Your task to perform on an android device: What is the speed of sound? Image 0: 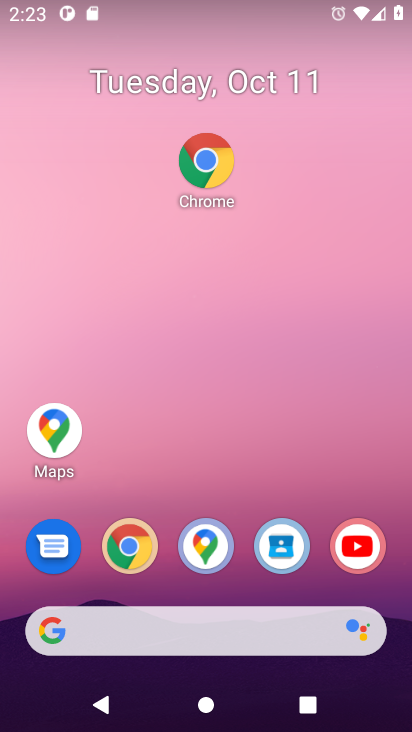
Step 0: click (136, 548)
Your task to perform on an android device: What is the speed of sound? Image 1: 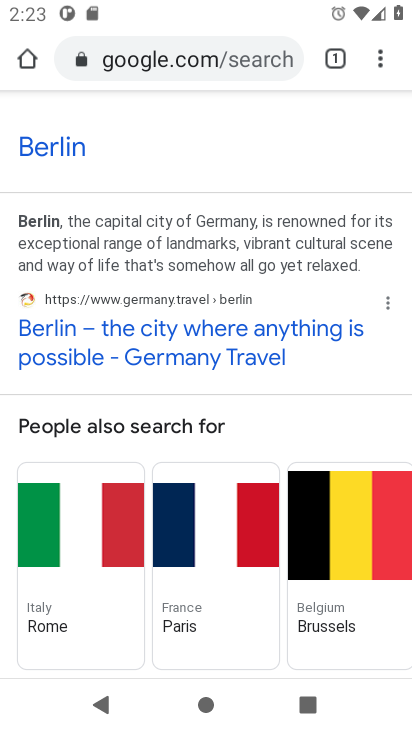
Step 1: click (202, 54)
Your task to perform on an android device: What is the speed of sound? Image 2: 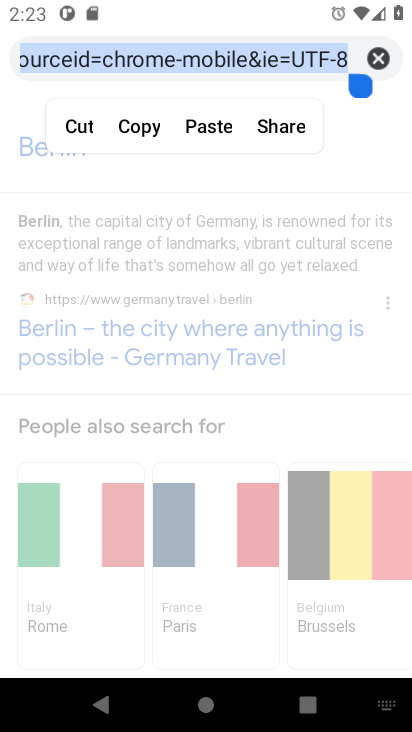
Step 2: press enter
Your task to perform on an android device: What is the speed of sound? Image 3: 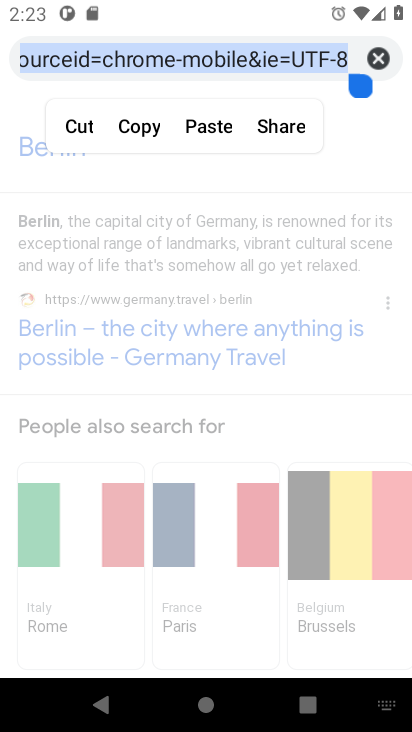
Step 3: type "speed of sound"
Your task to perform on an android device: What is the speed of sound? Image 4: 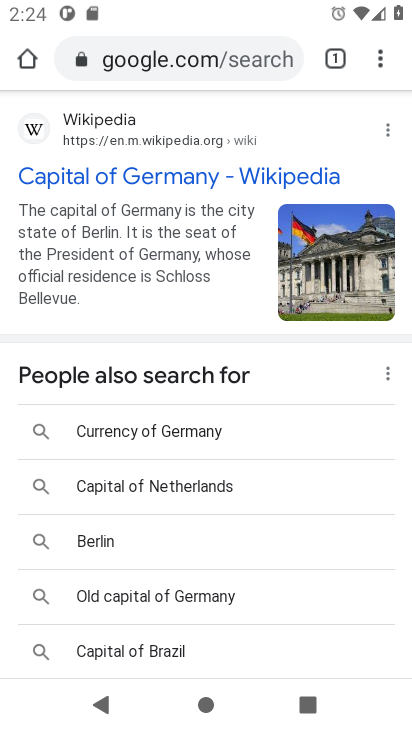
Step 4: click (240, 59)
Your task to perform on an android device: What is the speed of sound? Image 5: 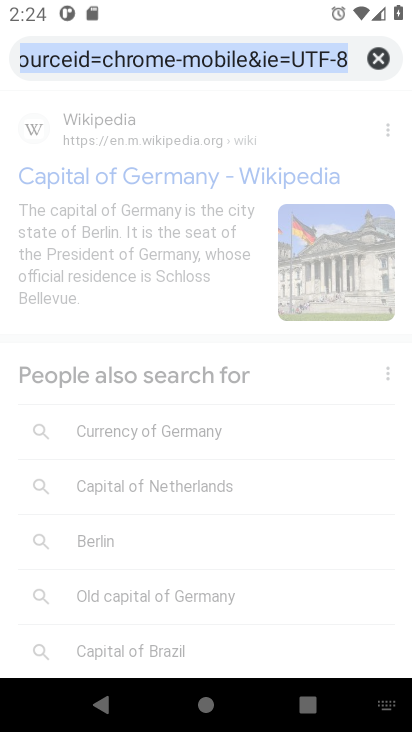
Step 5: type "speed of sound"
Your task to perform on an android device: What is the speed of sound? Image 6: 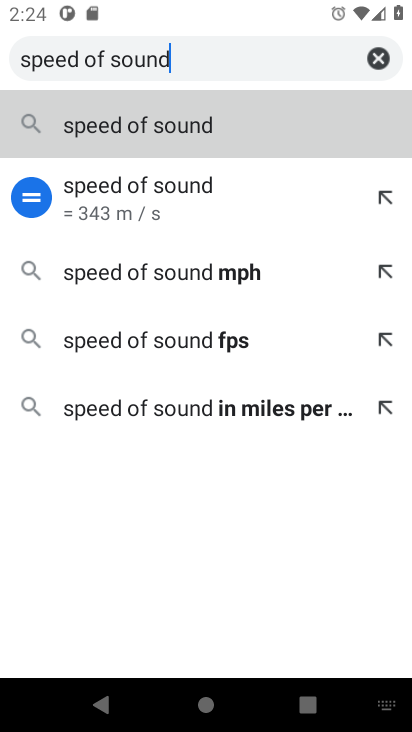
Step 6: type ""
Your task to perform on an android device: What is the speed of sound? Image 7: 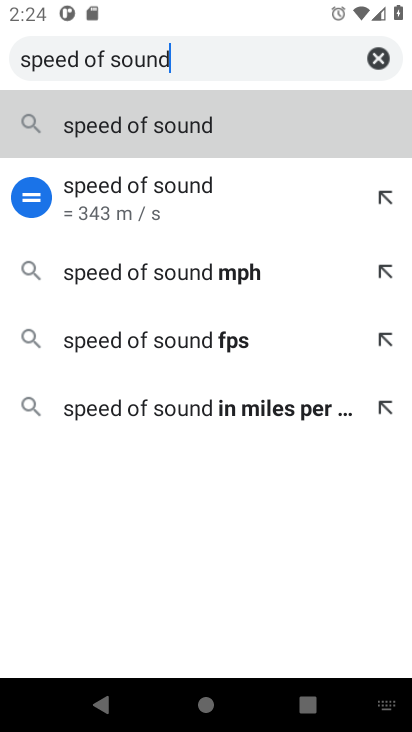
Step 7: press enter
Your task to perform on an android device: What is the speed of sound? Image 8: 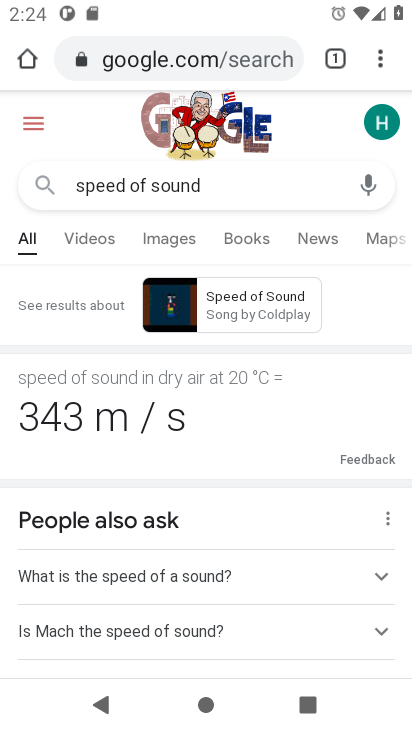
Step 8: drag from (200, 527) to (222, 208)
Your task to perform on an android device: What is the speed of sound? Image 9: 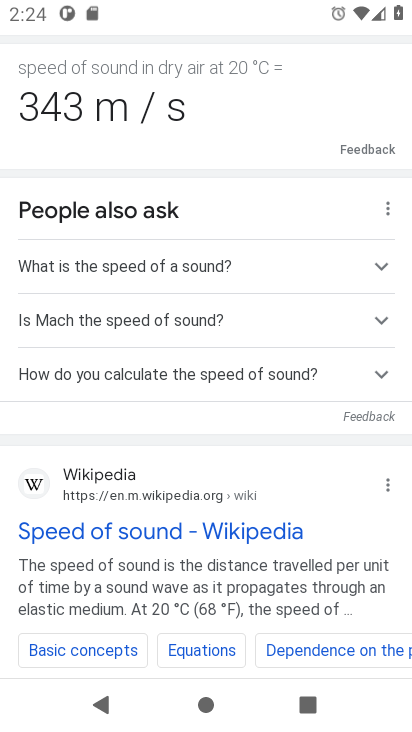
Step 9: click (198, 498)
Your task to perform on an android device: What is the speed of sound? Image 10: 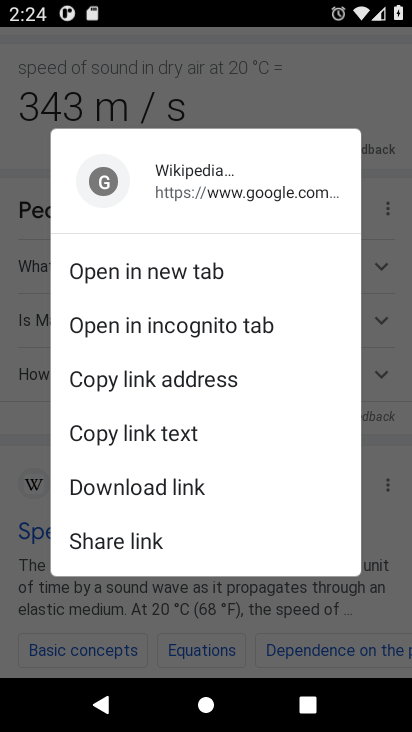
Step 10: click (386, 409)
Your task to perform on an android device: What is the speed of sound? Image 11: 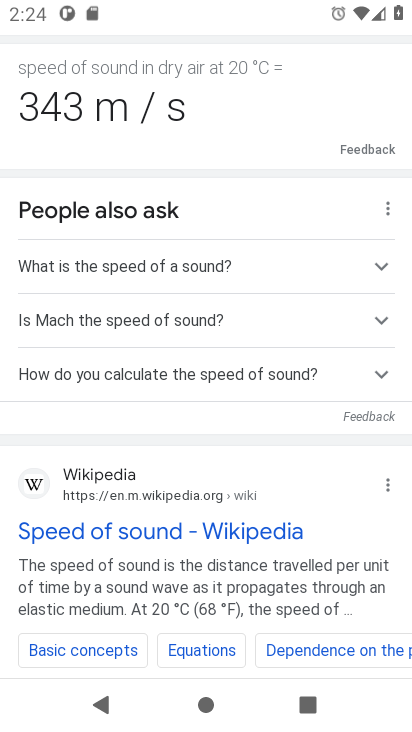
Step 11: drag from (250, 235) to (274, 441)
Your task to perform on an android device: What is the speed of sound? Image 12: 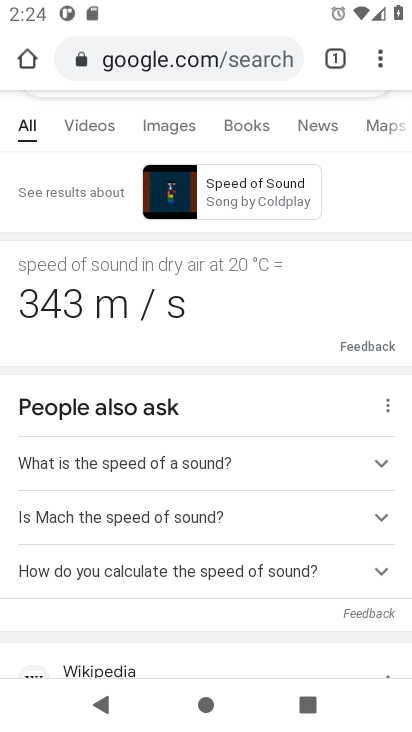
Step 12: click (268, 318)
Your task to perform on an android device: What is the speed of sound? Image 13: 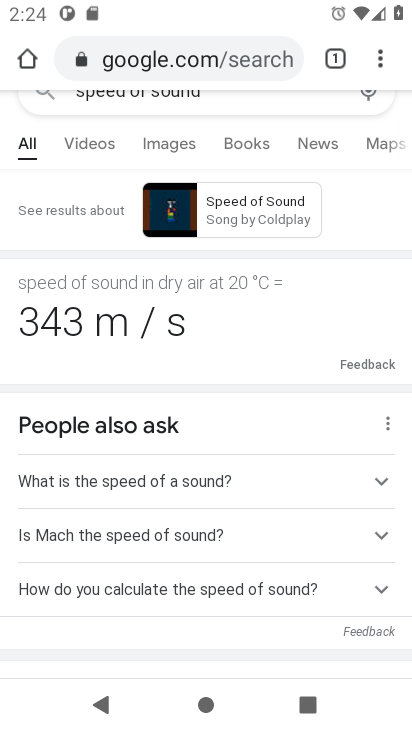
Step 13: task complete